Your task to perform on an android device: Do I have any events today? Image 0: 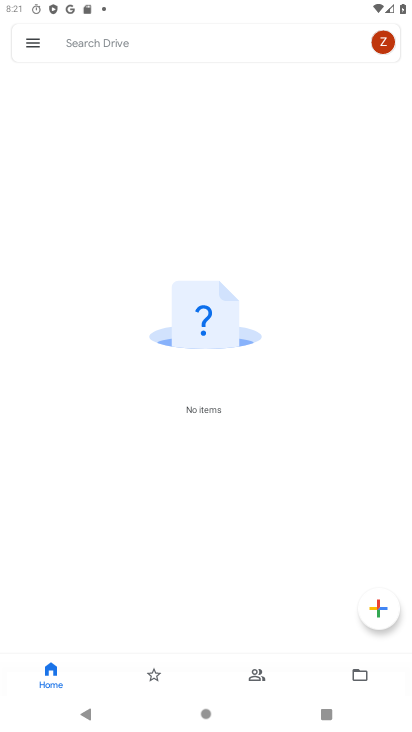
Step 0: press home button
Your task to perform on an android device: Do I have any events today? Image 1: 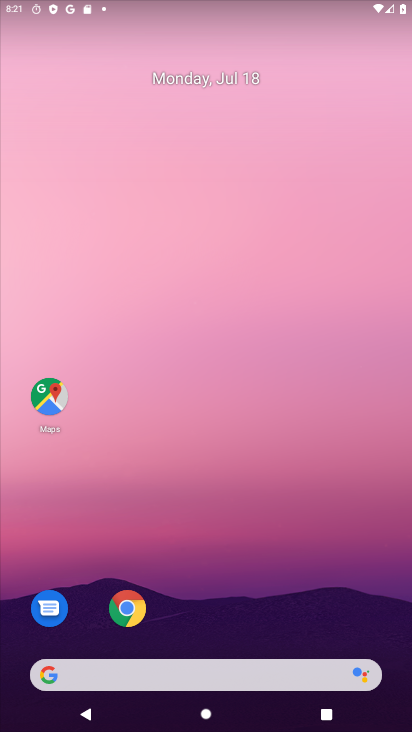
Step 1: drag from (112, 513) to (263, 231)
Your task to perform on an android device: Do I have any events today? Image 2: 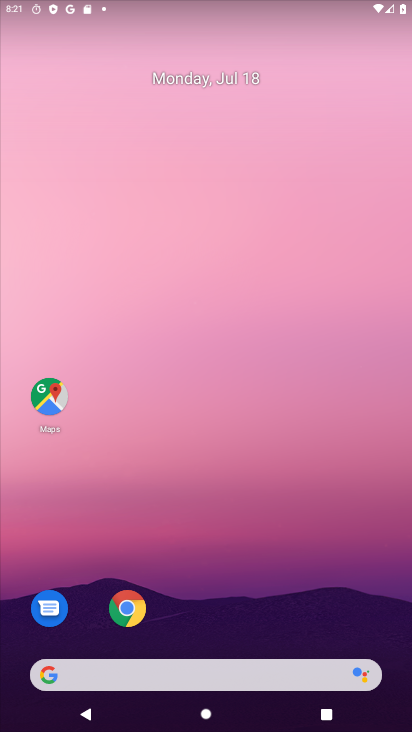
Step 2: drag from (36, 704) to (286, 114)
Your task to perform on an android device: Do I have any events today? Image 3: 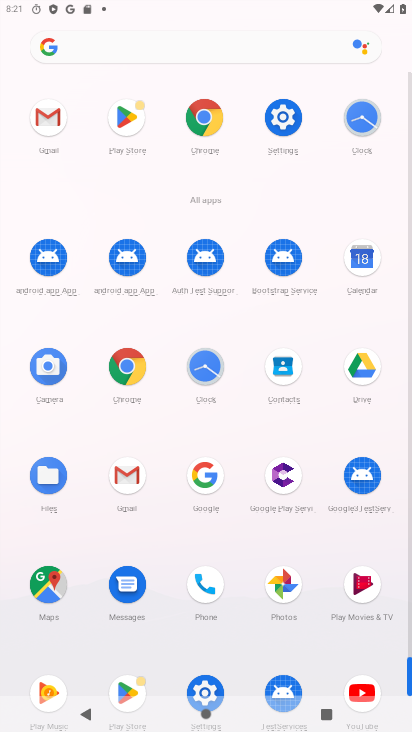
Step 3: click (358, 251)
Your task to perform on an android device: Do I have any events today? Image 4: 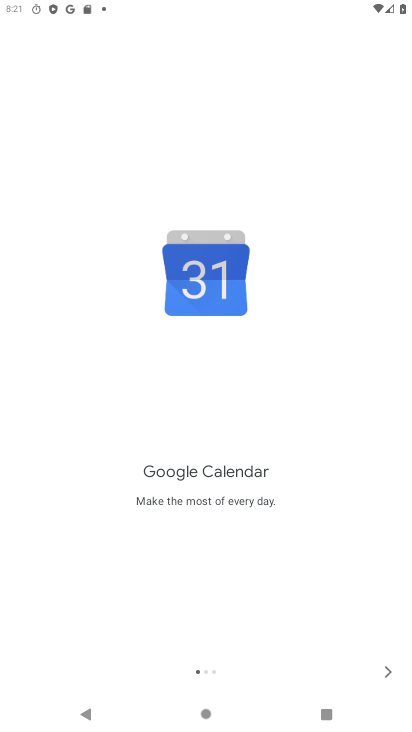
Step 4: click (393, 675)
Your task to perform on an android device: Do I have any events today? Image 5: 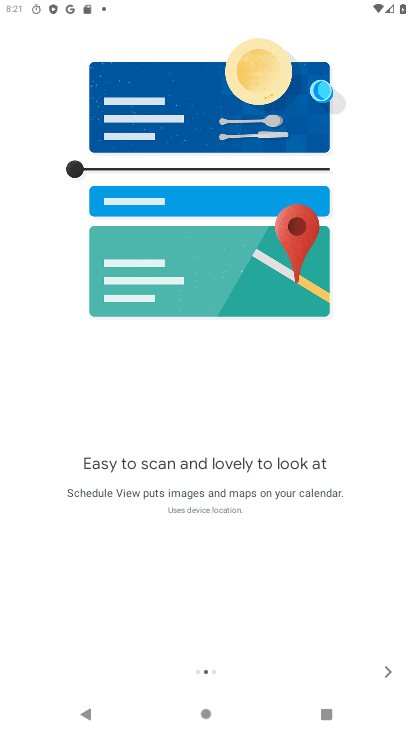
Step 5: click (394, 673)
Your task to perform on an android device: Do I have any events today? Image 6: 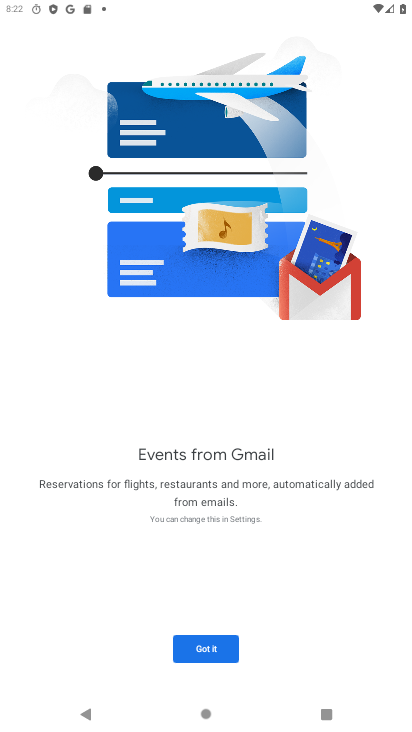
Step 6: click (224, 645)
Your task to perform on an android device: Do I have any events today? Image 7: 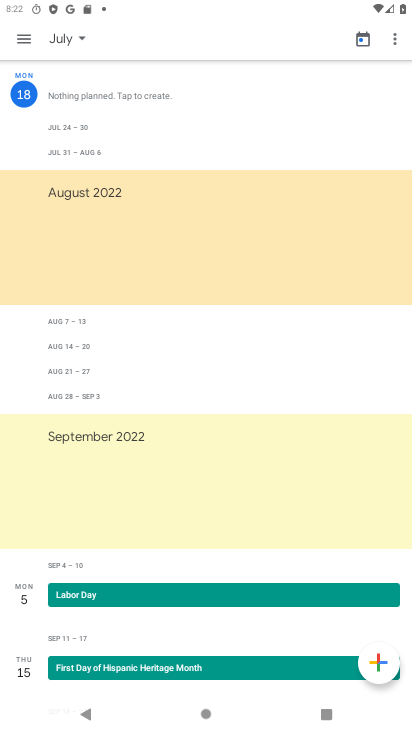
Step 7: click (82, 46)
Your task to perform on an android device: Do I have any events today? Image 8: 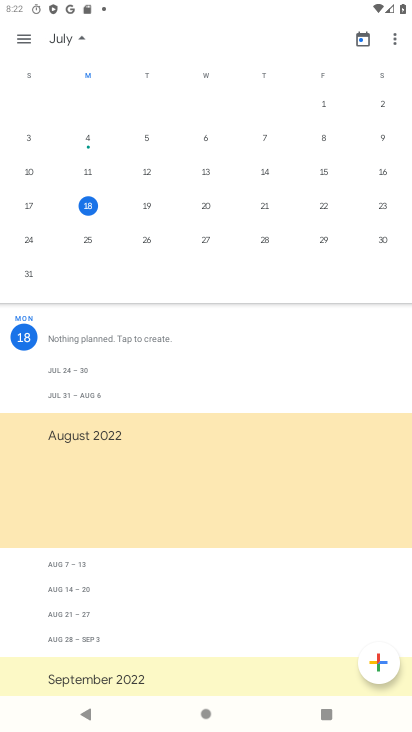
Step 8: task complete